Your task to perform on an android device: open a new tab in the chrome app Image 0: 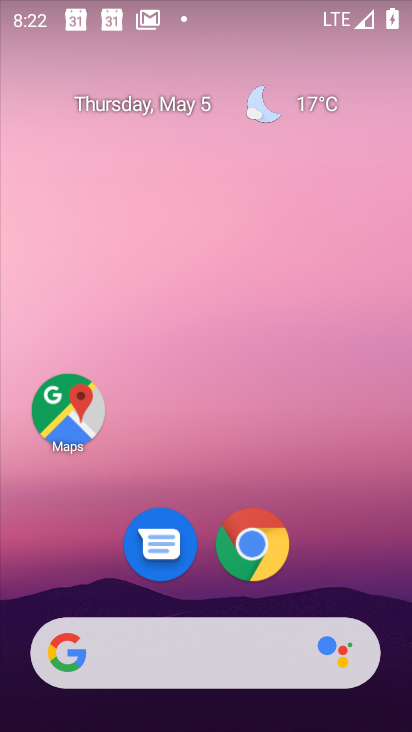
Step 0: click (253, 547)
Your task to perform on an android device: open a new tab in the chrome app Image 1: 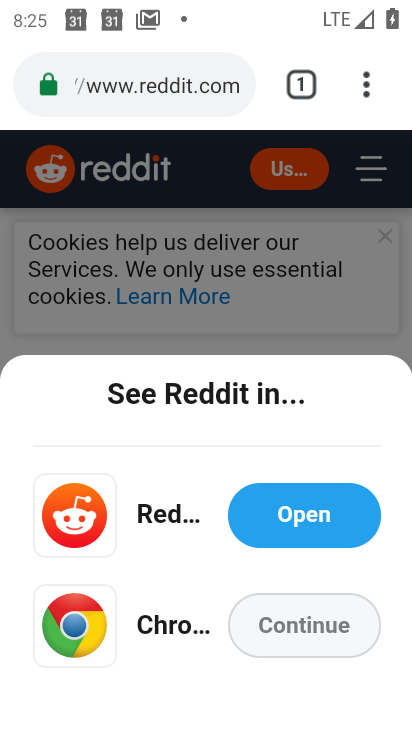
Step 1: press home button
Your task to perform on an android device: open a new tab in the chrome app Image 2: 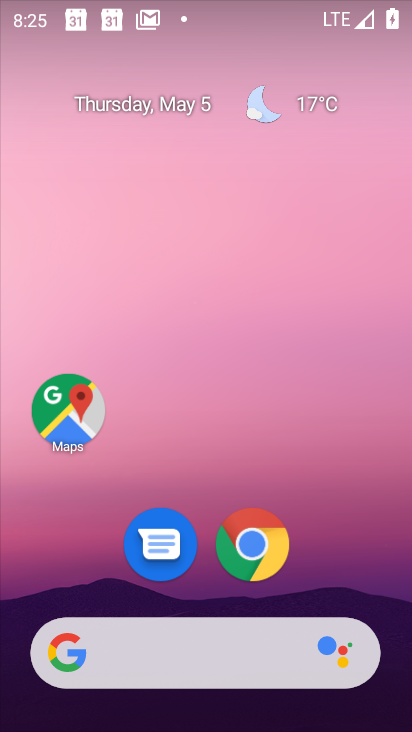
Step 2: click (244, 549)
Your task to perform on an android device: open a new tab in the chrome app Image 3: 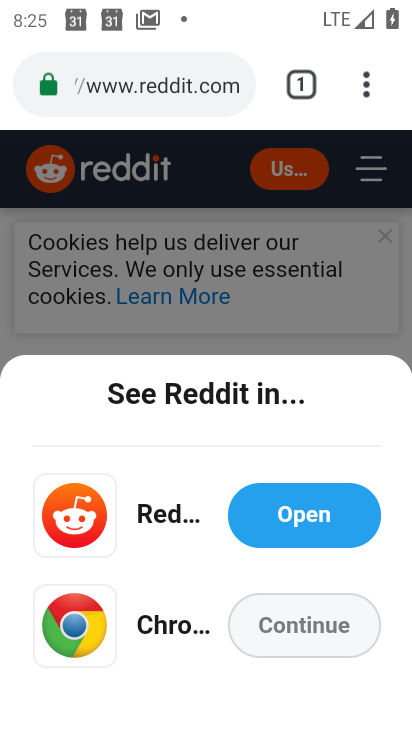
Step 3: click (313, 82)
Your task to perform on an android device: open a new tab in the chrome app Image 4: 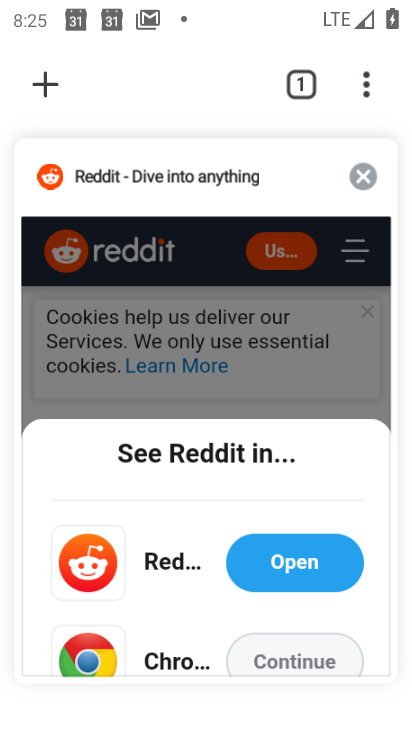
Step 4: click (53, 77)
Your task to perform on an android device: open a new tab in the chrome app Image 5: 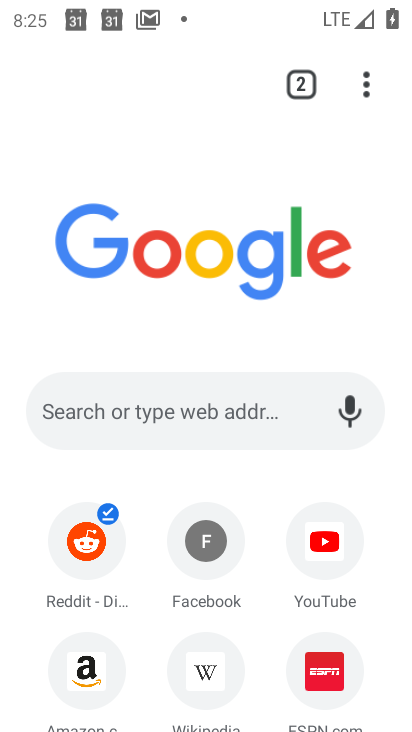
Step 5: task complete